Your task to perform on an android device: Open ESPN.com Image 0: 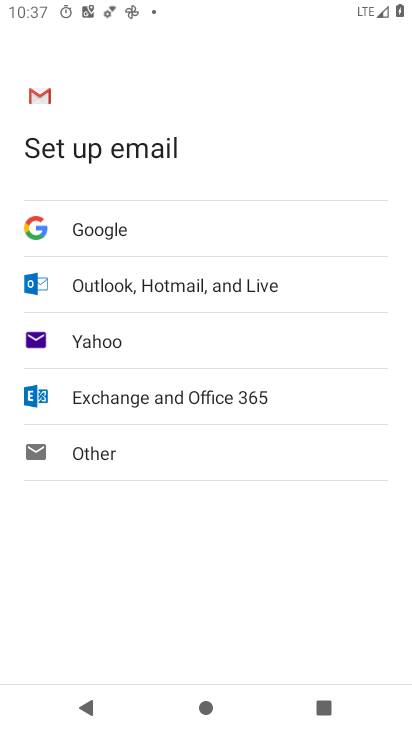
Step 0: press home button
Your task to perform on an android device: Open ESPN.com Image 1: 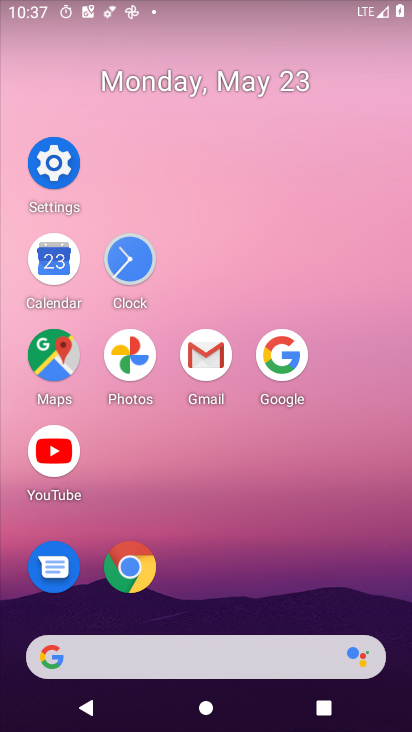
Step 1: click (131, 591)
Your task to perform on an android device: Open ESPN.com Image 2: 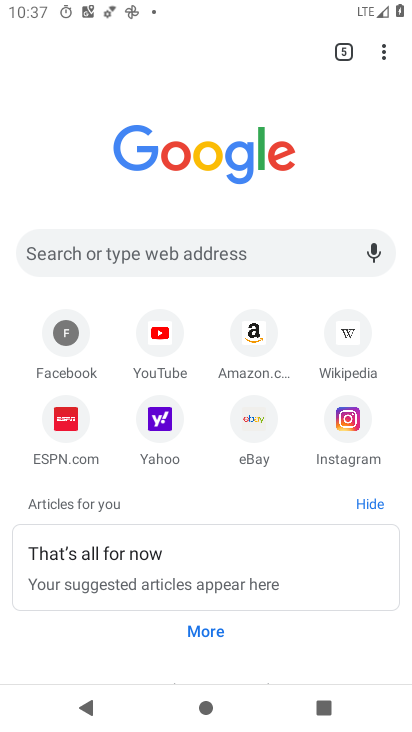
Step 2: click (55, 440)
Your task to perform on an android device: Open ESPN.com Image 3: 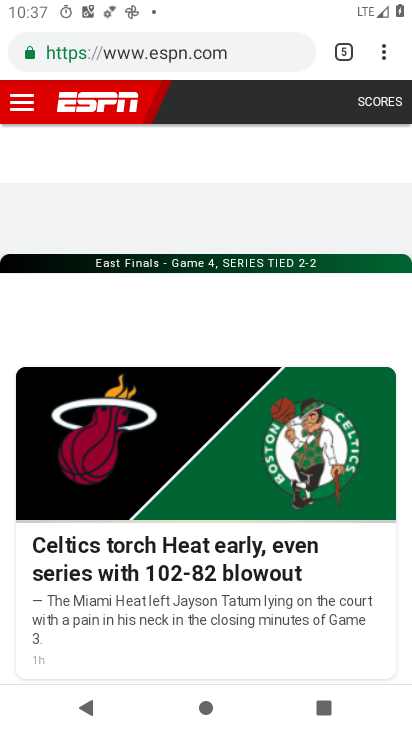
Step 3: task complete